Your task to perform on an android device: change the upload size in google photos Image 0: 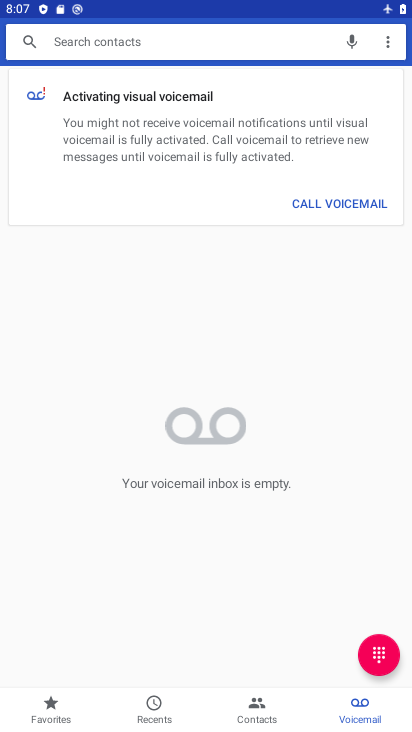
Step 0: press home button
Your task to perform on an android device: change the upload size in google photos Image 1: 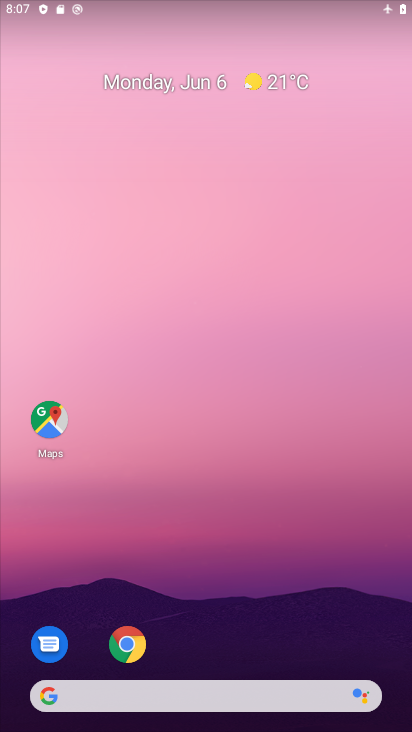
Step 1: drag from (222, 672) to (229, 89)
Your task to perform on an android device: change the upload size in google photos Image 2: 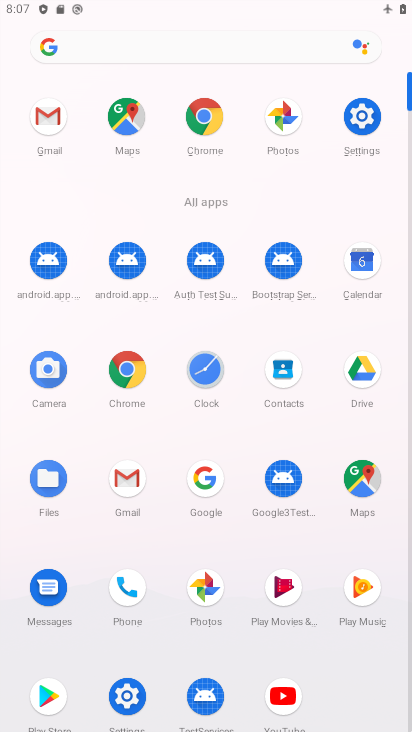
Step 2: click (297, 110)
Your task to perform on an android device: change the upload size in google photos Image 3: 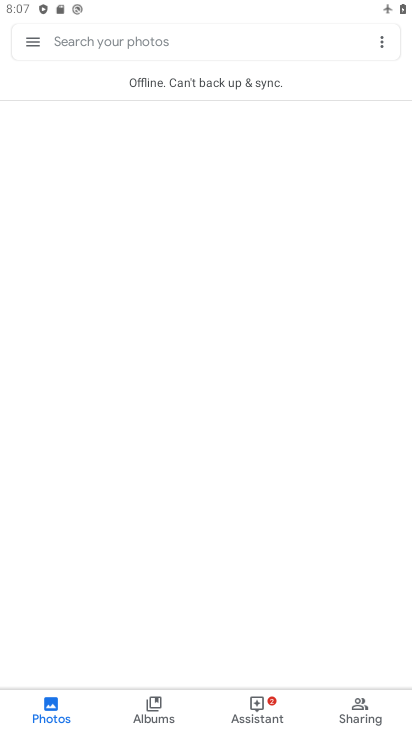
Step 3: drag from (36, 41) to (86, 288)
Your task to perform on an android device: change the upload size in google photos Image 4: 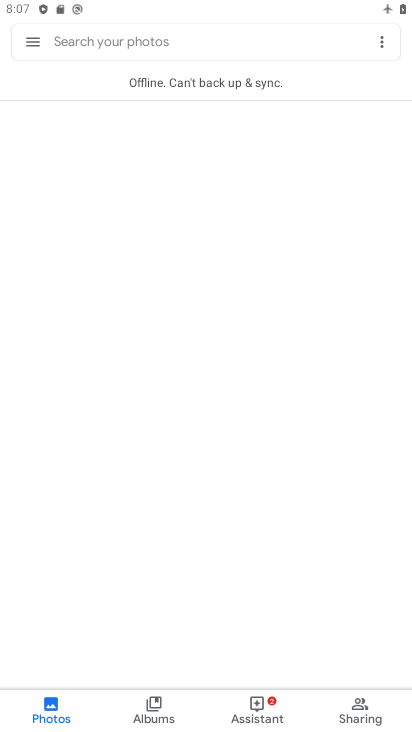
Step 4: click (29, 40)
Your task to perform on an android device: change the upload size in google photos Image 5: 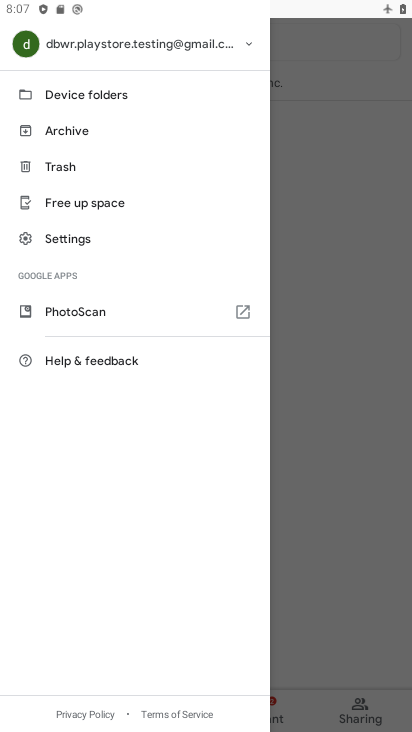
Step 5: click (72, 240)
Your task to perform on an android device: change the upload size in google photos Image 6: 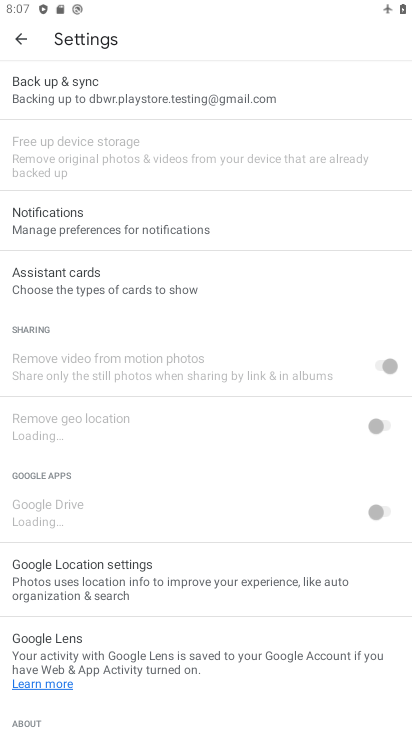
Step 6: click (93, 79)
Your task to perform on an android device: change the upload size in google photos Image 7: 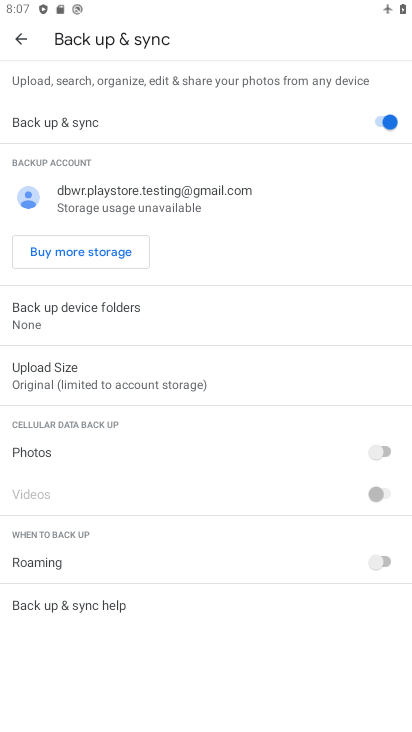
Step 7: click (96, 377)
Your task to perform on an android device: change the upload size in google photos Image 8: 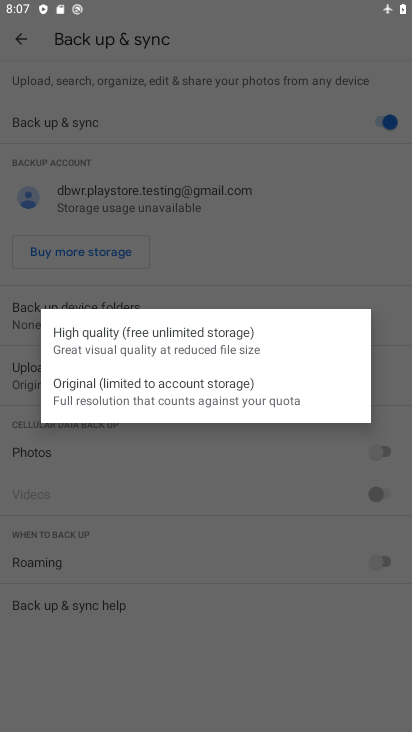
Step 8: click (134, 349)
Your task to perform on an android device: change the upload size in google photos Image 9: 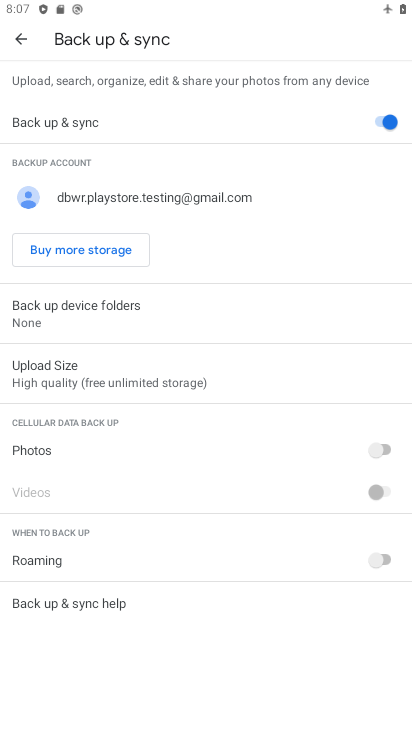
Step 9: task complete